Your task to perform on an android device: Search for logitech g910 on newegg, select the first entry, and add it to the cart. Image 0: 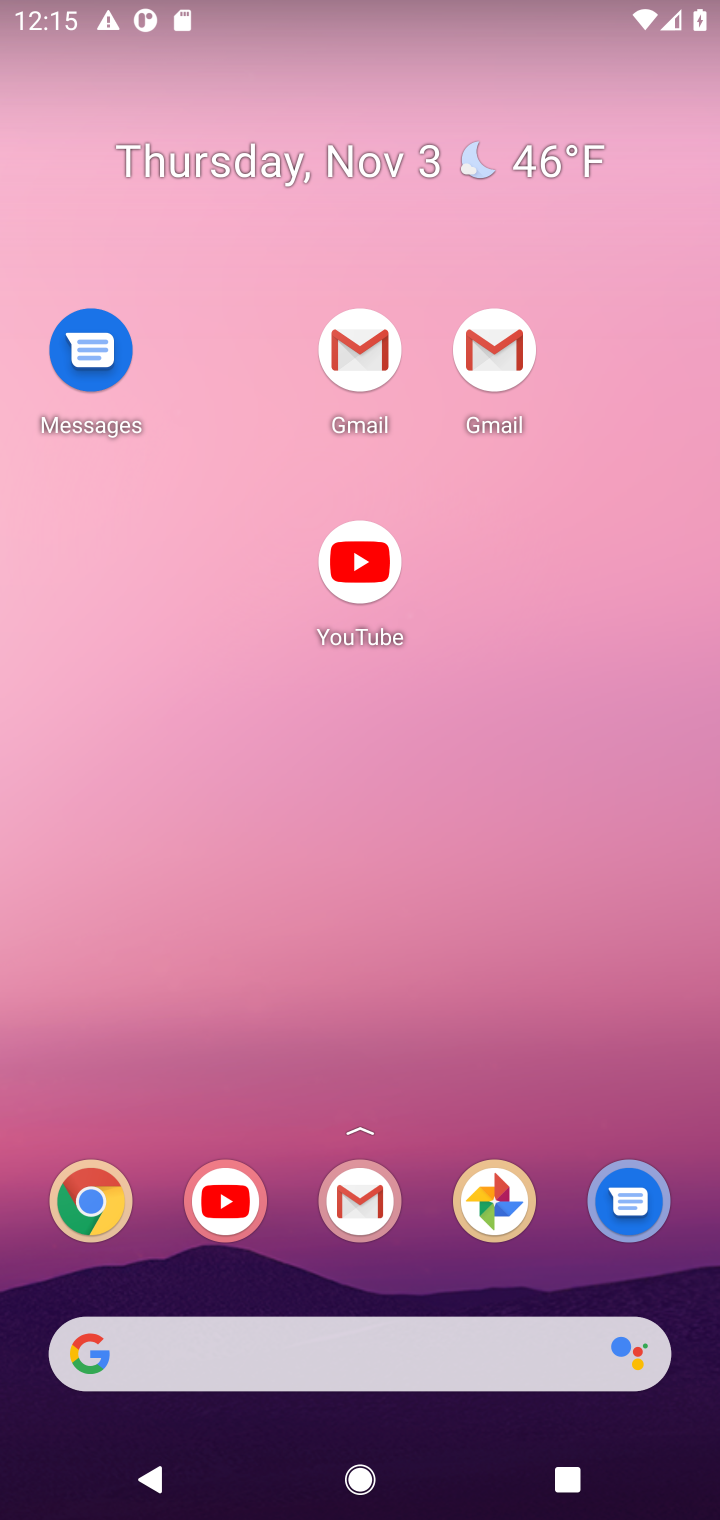
Step 0: drag from (485, 934) to (586, 94)
Your task to perform on an android device: Search for logitech g910 on newegg, select the first entry, and add it to the cart. Image 1: 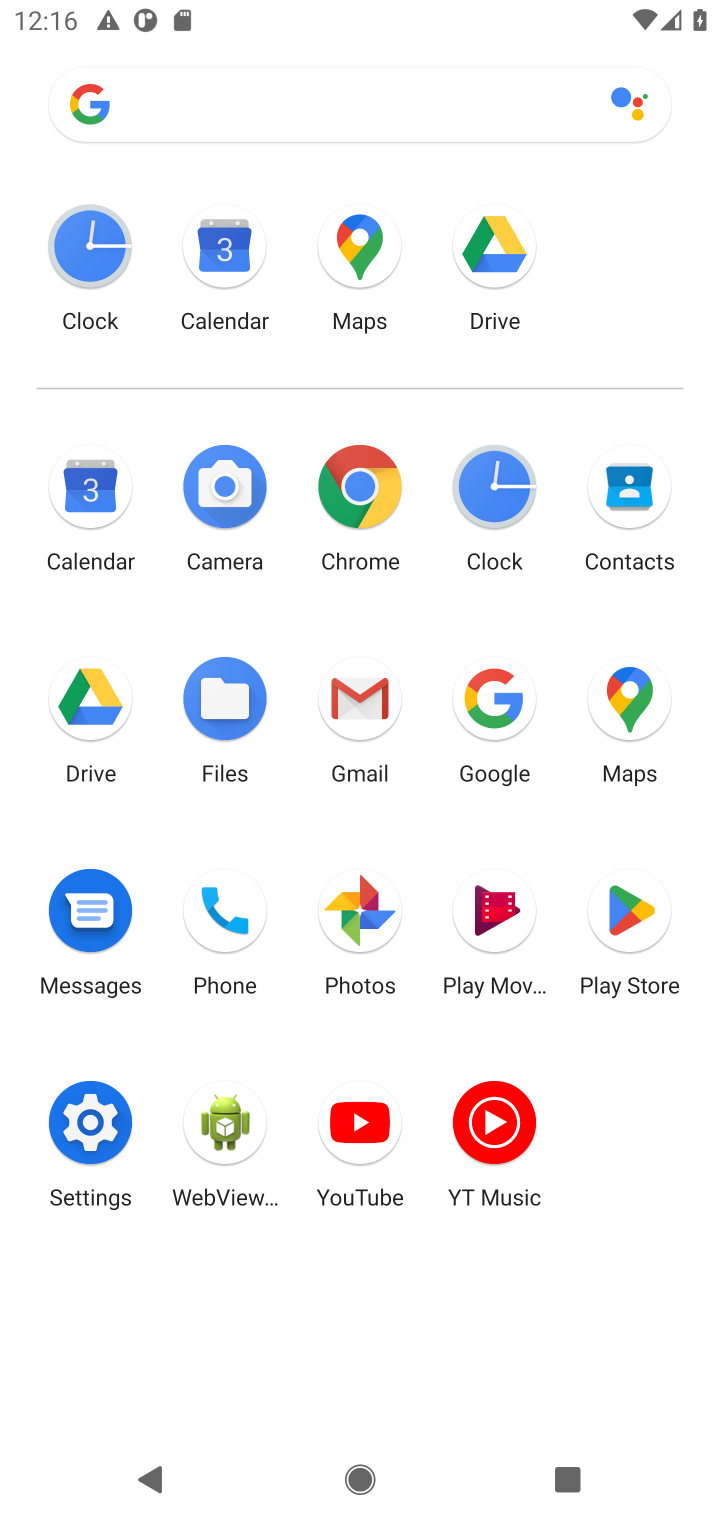
Step 1: click (364, 488)
Your task to perform on an android device: Search for logitech g910 on newegg, select the first entry, and add it to the cart. Image 2: 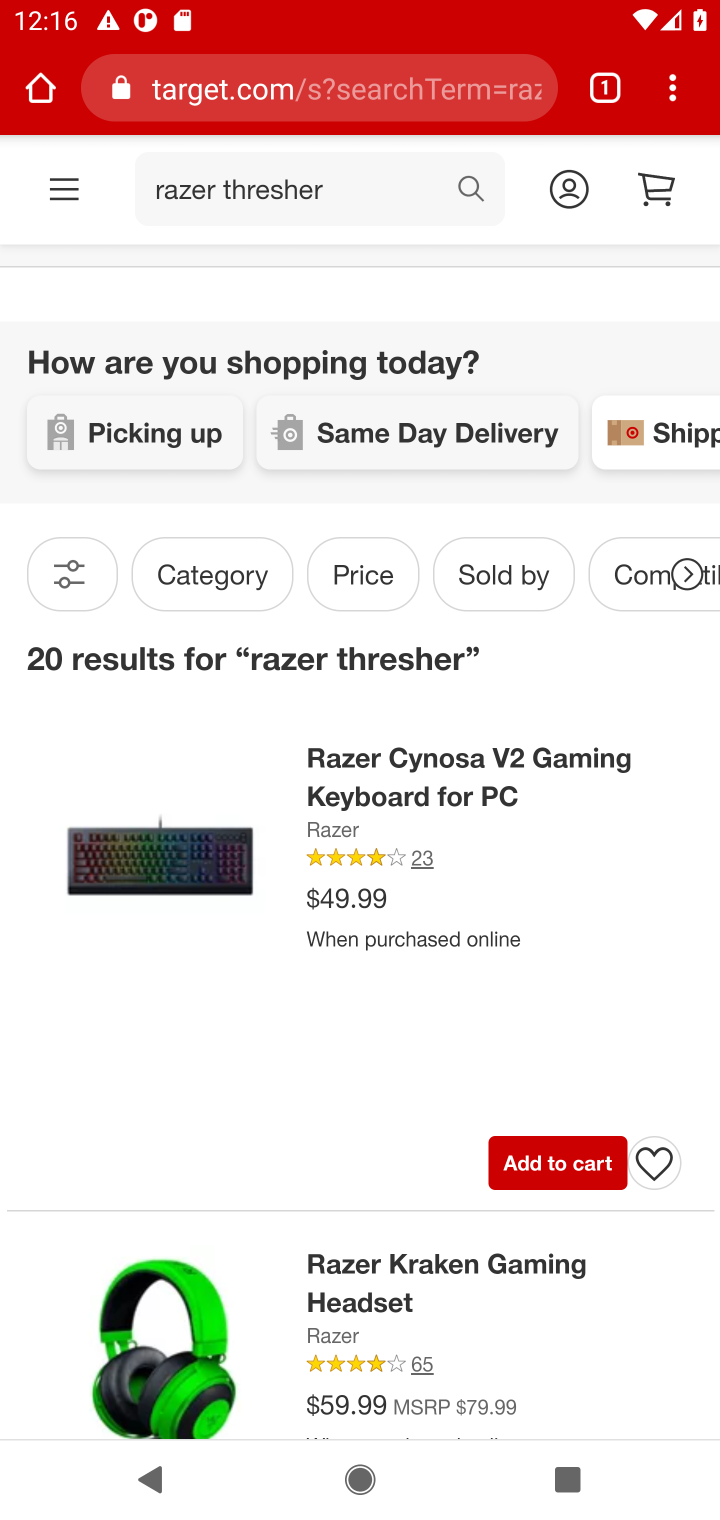
Step 2: click (385, 91)
Your task to perform on an android device: Search for logitech g910 on newegg, select the first entry, and add it to the cart. Image 3: 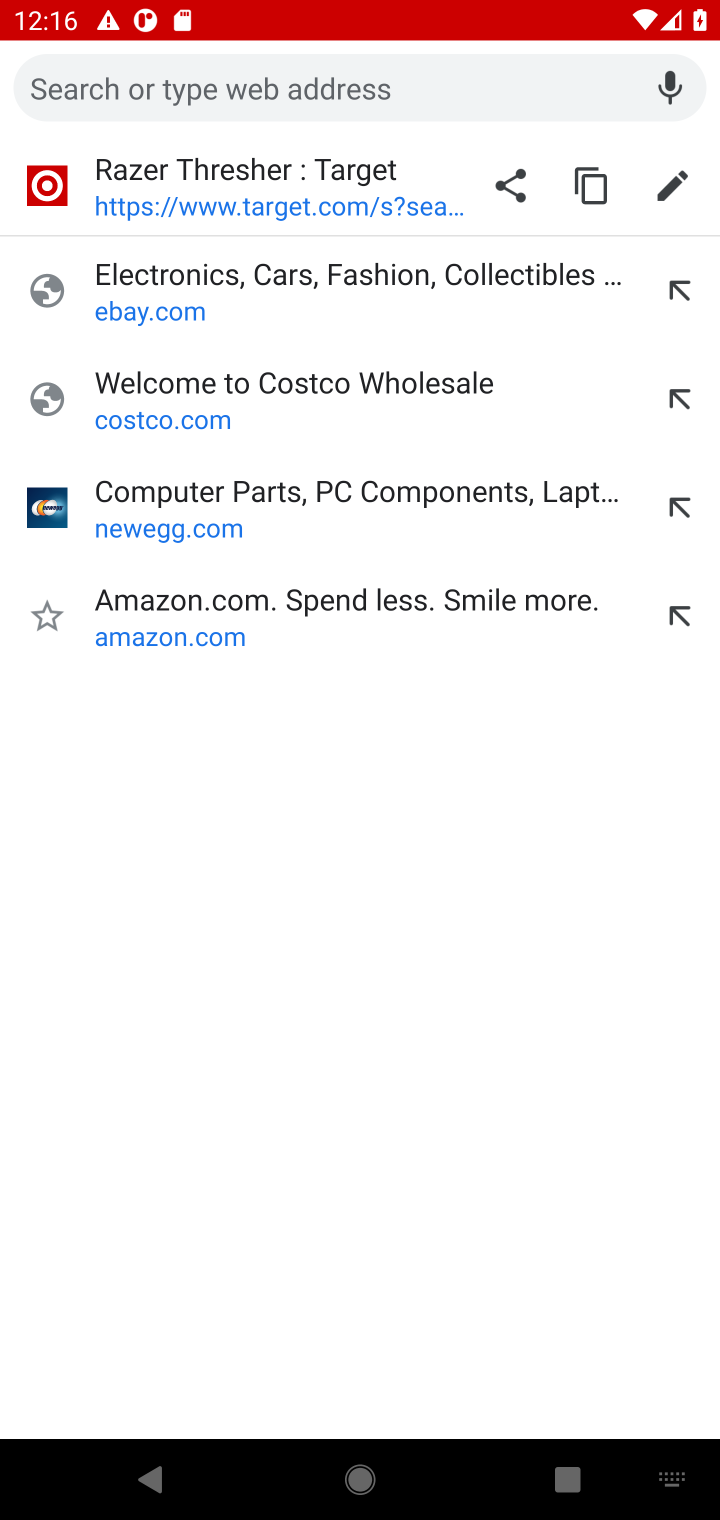
Step 3: type "newegg.com"
Your task to perform on an android device: Search for logitech g910 on newegg, select the first entry, and add it to the cart. Image 4: 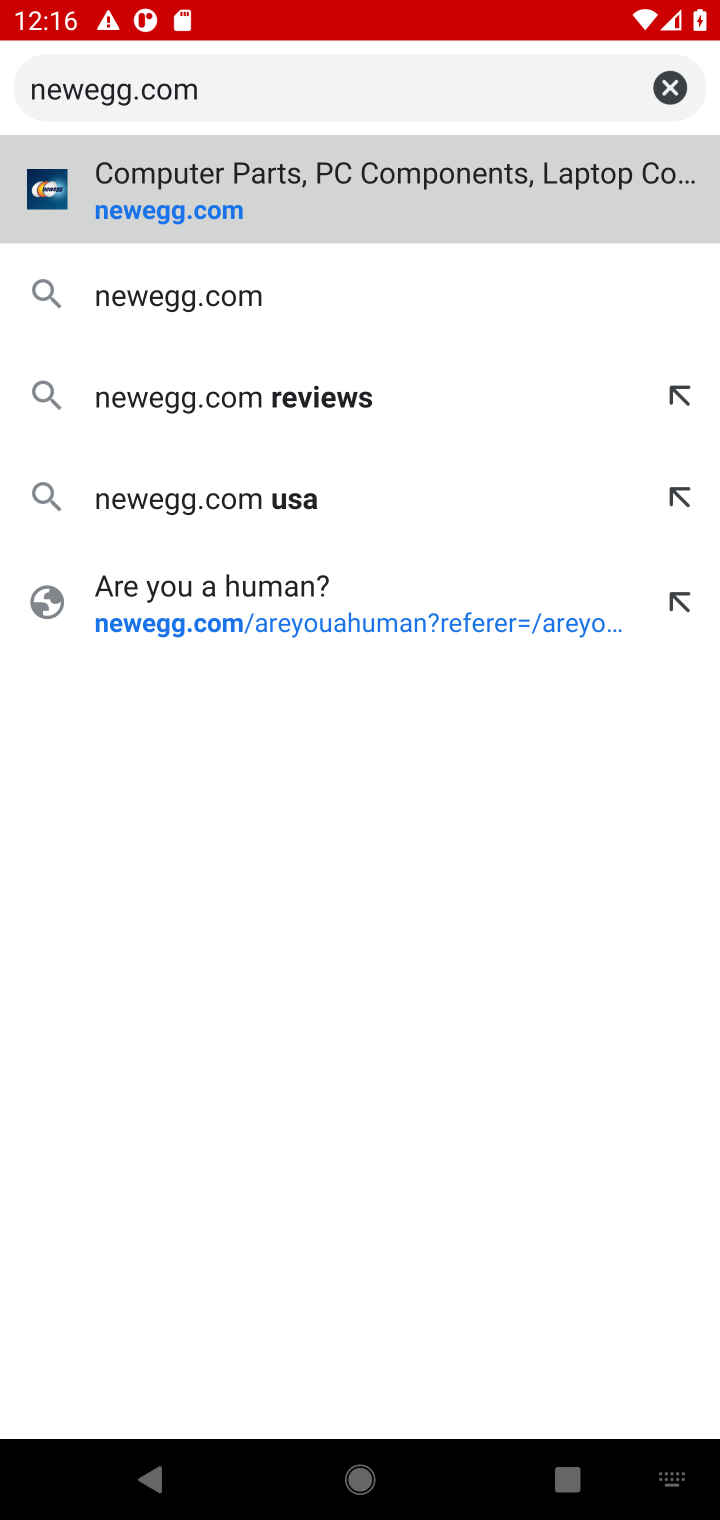
Step 4: press enter
Your task to perform on an android device: Search for logitech g910 on newegg, select the first entry, and add it to the cart. Image 5: 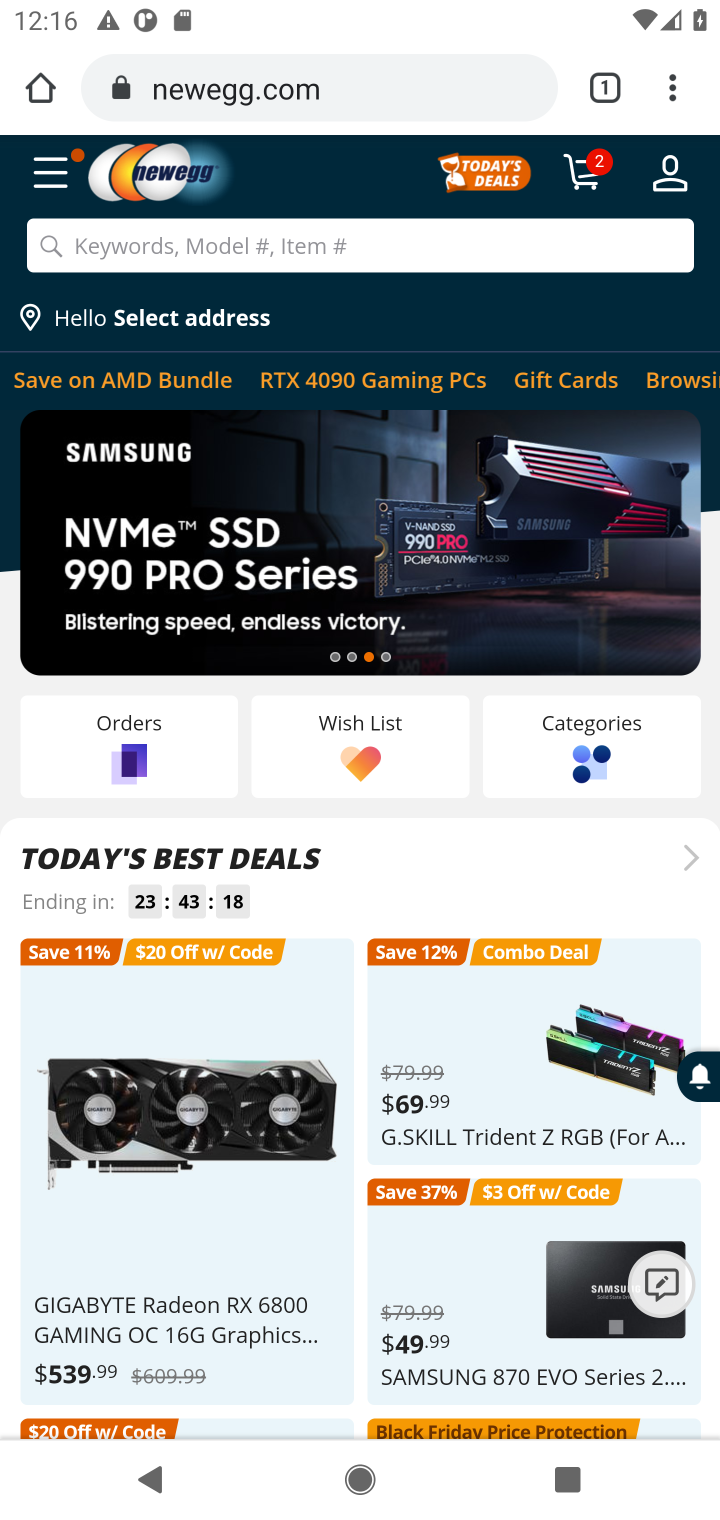
Step 5: click (398, 255)
Your task to perform on an android device: Search for logitech g910 on newegg, select the first entry, and add it to the cart. Image 6: 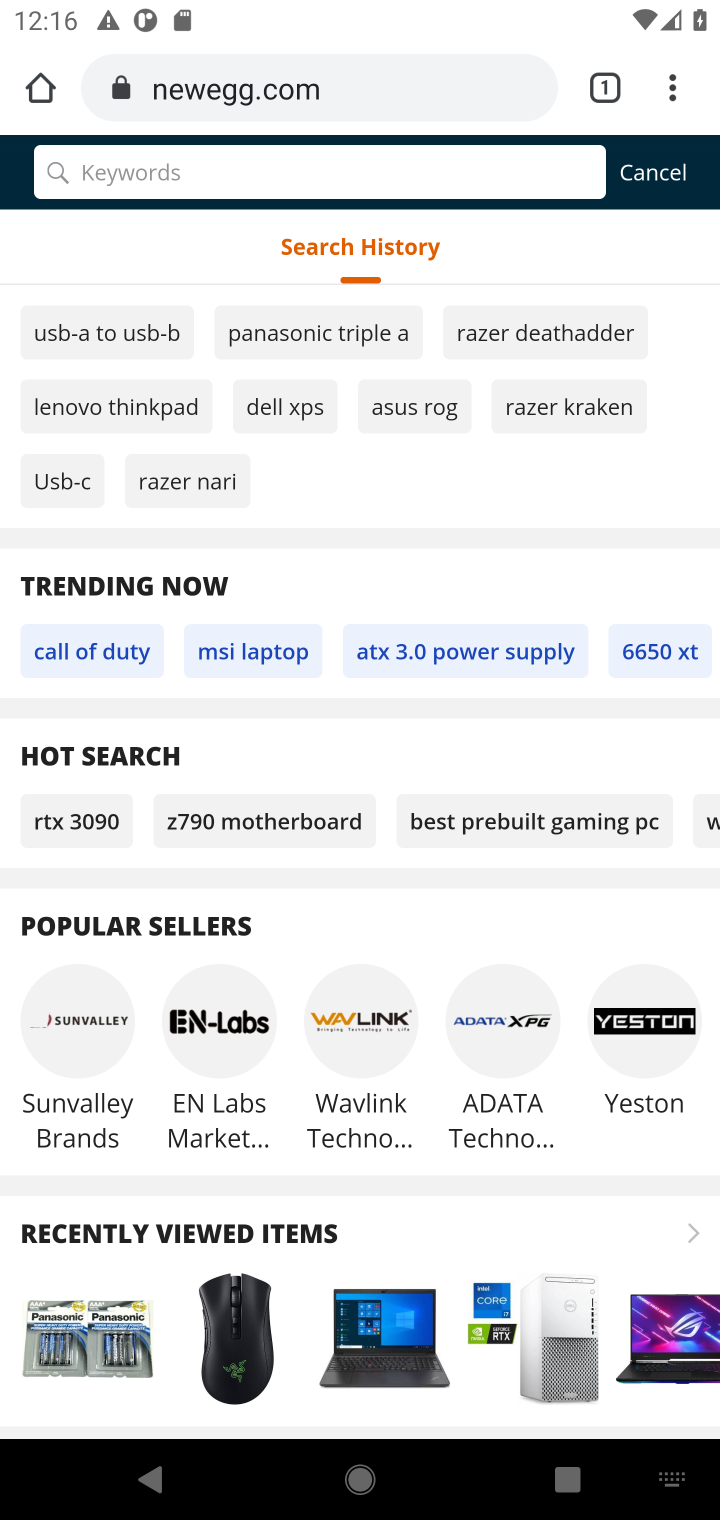
Step 6: type "logitech g910"
Your task to perform on an android device: Search for logitech g910 on newegg, select the first entry, and add it to the cart. Image 7: 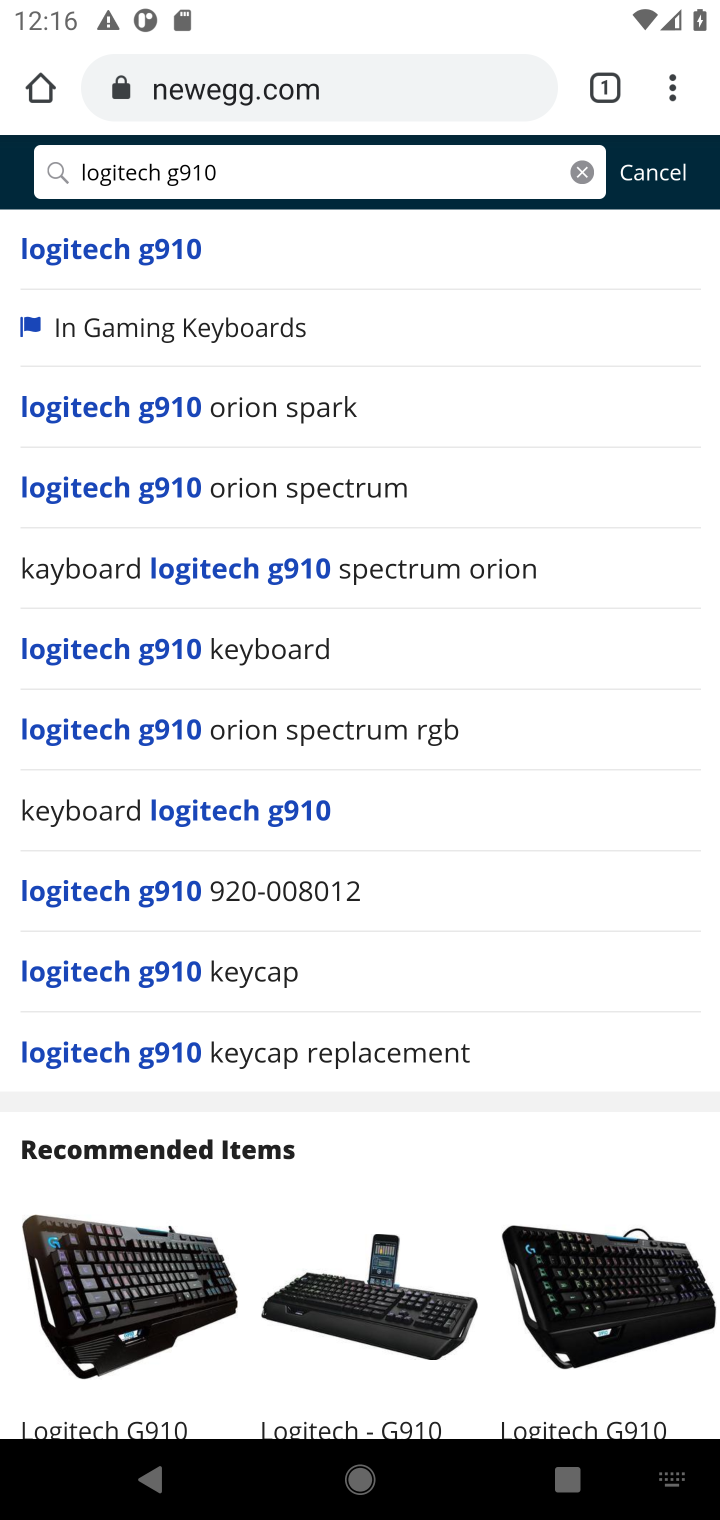
Step 7: press enter
Your task to perform on an android device: Search for logitech g910 on newegg, select the first entry, and add it to the cart. Image 8: 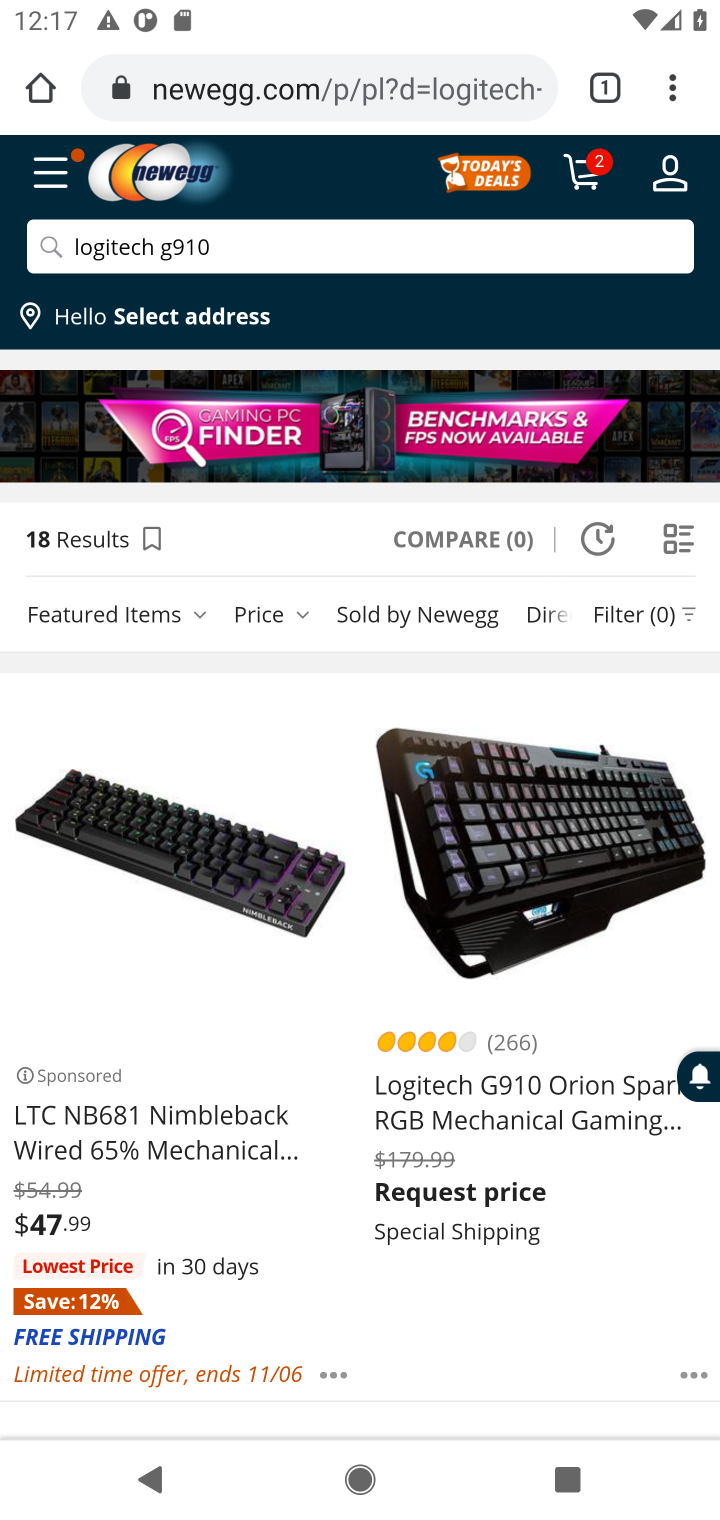
Step 8: click (451, 1087)
Your task to perform on an android device: Search for logitech g910 on newegg, select the first entry, and add it to the cart. Image 9: 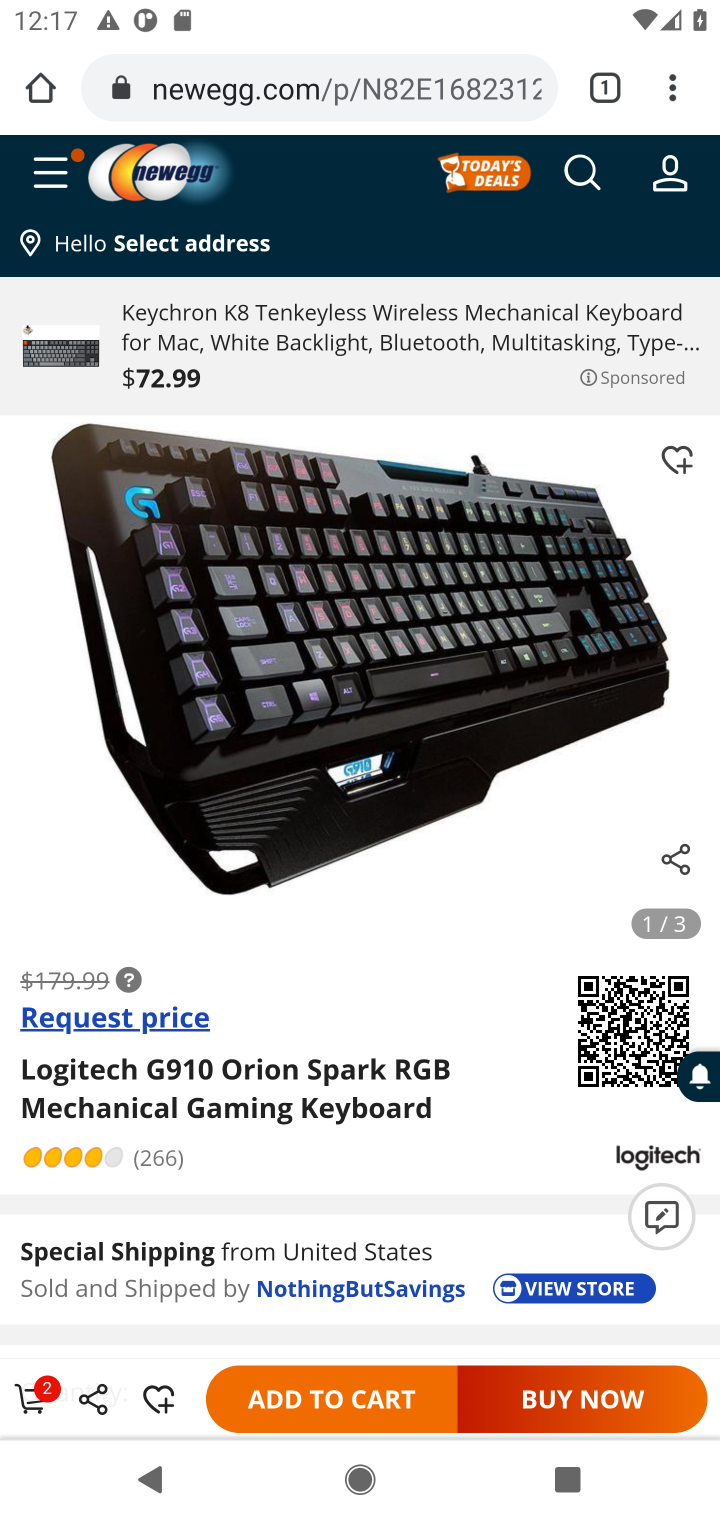
Step 9: click (311, 1393)
Your task to perform on an android device: Search for logitech g910 on newegg, select the first entry, and add it to the cart. Image 10: 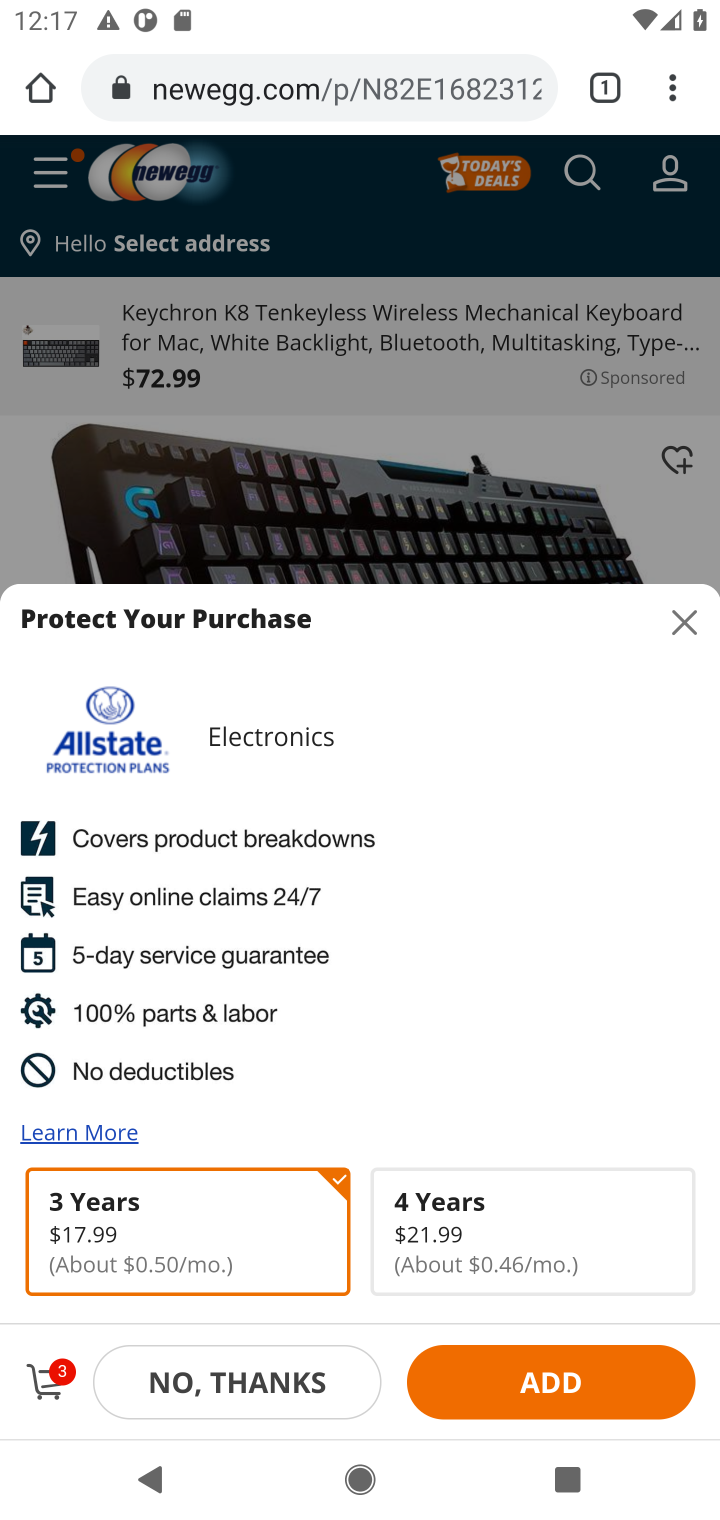
Step 10: click (677, 617)
Your task to perform on an android device: Search for logitech g910 on newegg, select the first entry, and add it to the cart. Image 11: 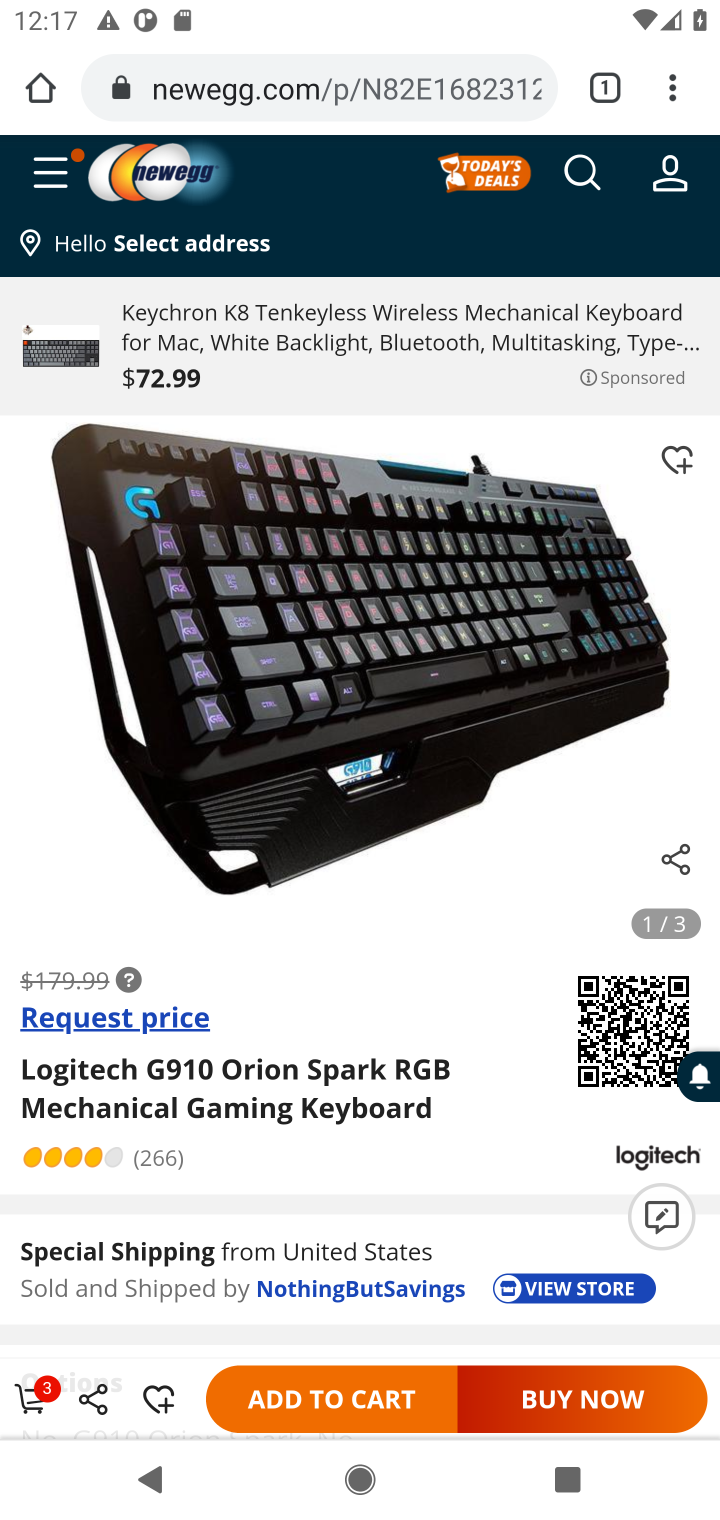
Step 11: task complete